Your task to perform on an android device: Open Google Chrome and open the bookmarks view Image 0: 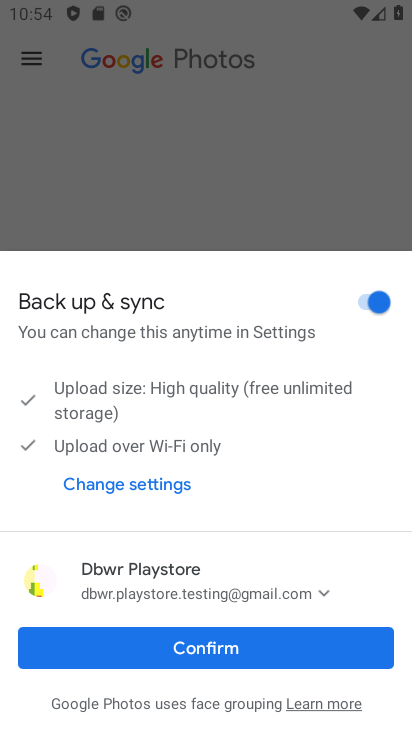
Step 0: press home button
Your task to perform on an android device: Open Google Chrome and open the bookmarks view Image 1: 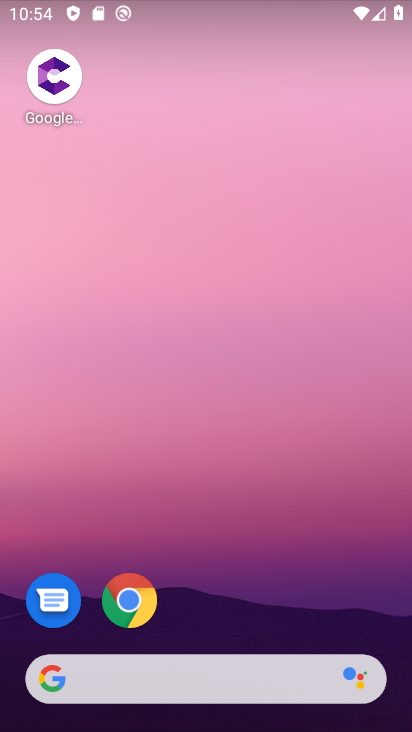
Step 1: click (129, 594)
Your task to perform on an android device: Open Google Chrome and open the bookmarks view Image 2: 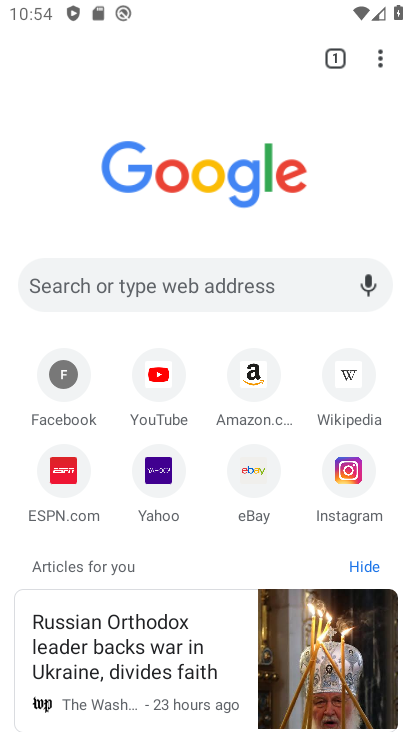
Step 2: click (376, 60)
Your task to perform on an android device: Open Google Chrome and open the bookmarks view Image 3: 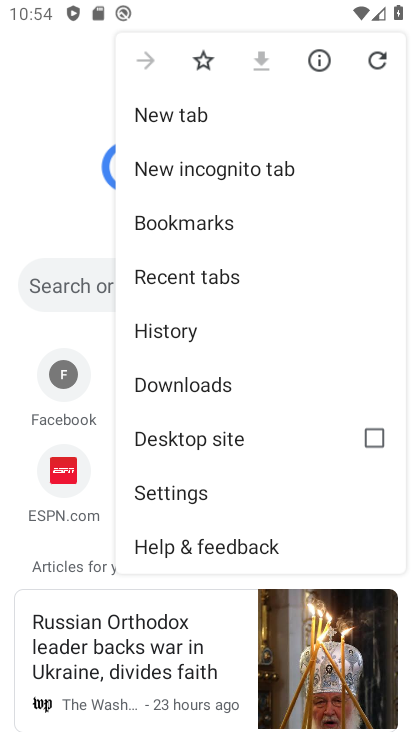
Step 3: click (171, 218)
Your task to perform on an android device: Open Google Chrome and open the bookmarks view Image 4: 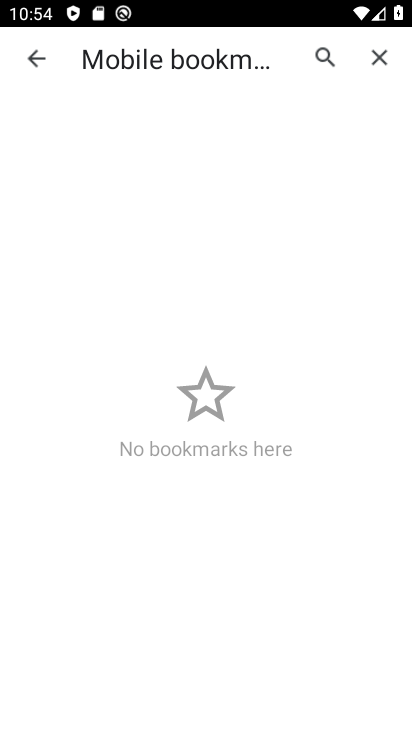
Step 4: task complete